Your task to perform on an android device: change the clock display to digital Image 0: 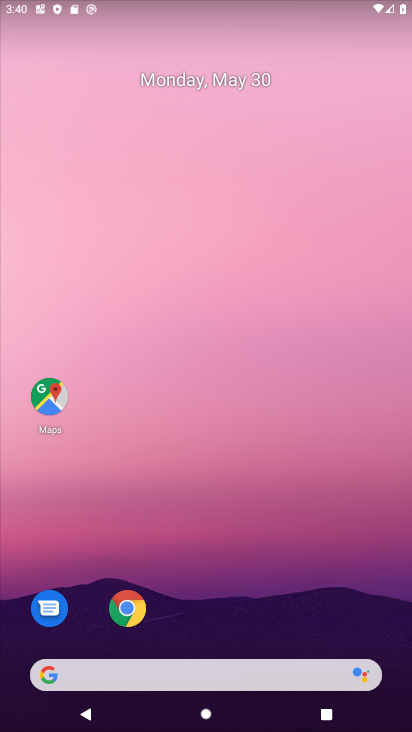
Step 0: drag from (234, 582) to (235, 169)
Your task to perform on an android device: change the clock display to digital Image 1: 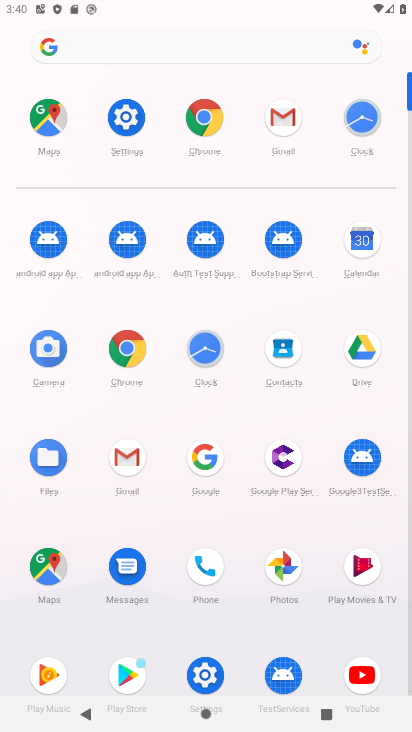
Step 1: click (196, 349)
Your task to perform on an android device: change the clock display to digital Image 2: 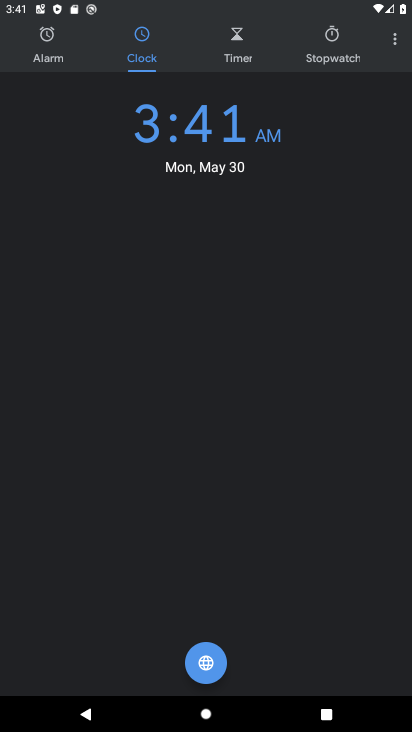
Step 2: click (398, 40)
Your task to perform on an android device: change the clock display to digital Image 3: 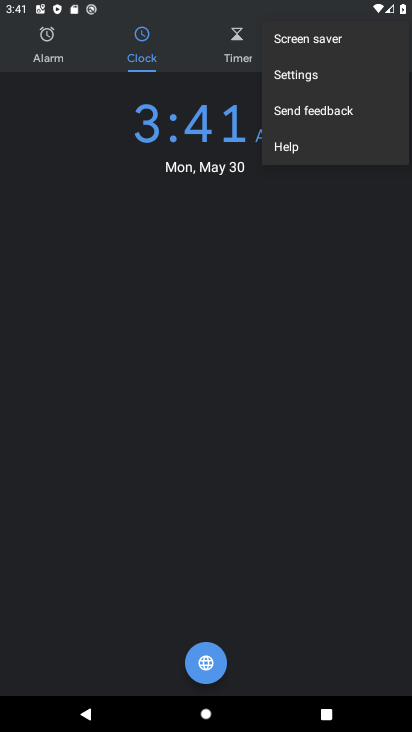
Step 3: click (309, 76)
Your task to perform on an android device: change the clock display to digital Image 4: 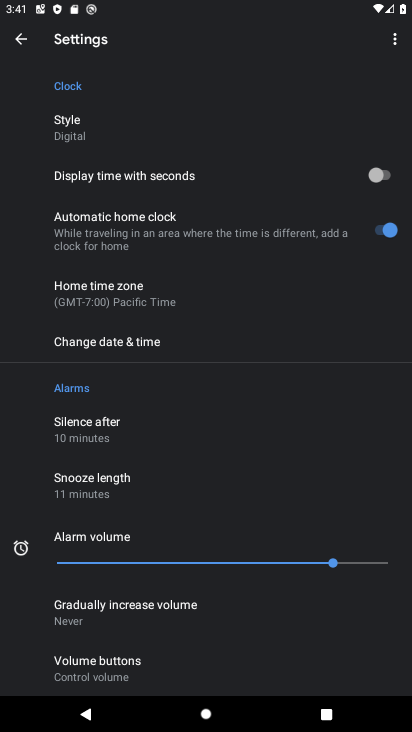
Step 4: task complete